Your task to perform on an android device: set the timer Image 0: 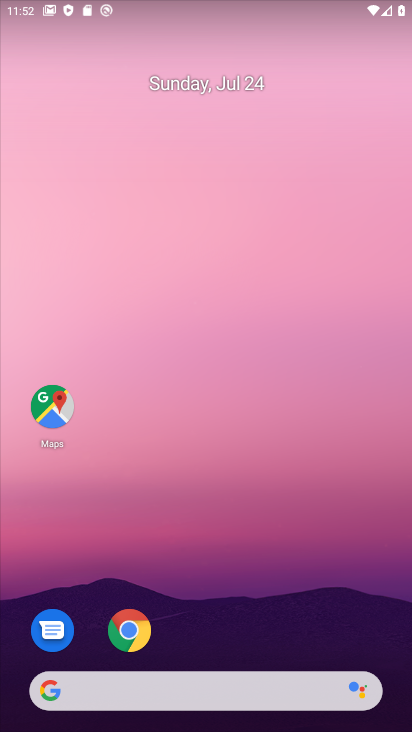
Step 0: press home button
Your task to perform on an android device: set the timer Image 1: 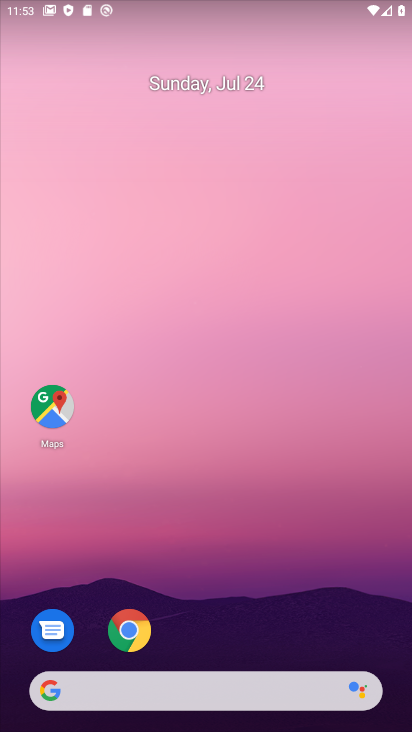
Step 1: drag from (252, 619) to (211, 59)
Your task to perform on an android device: set the timer Image 2: 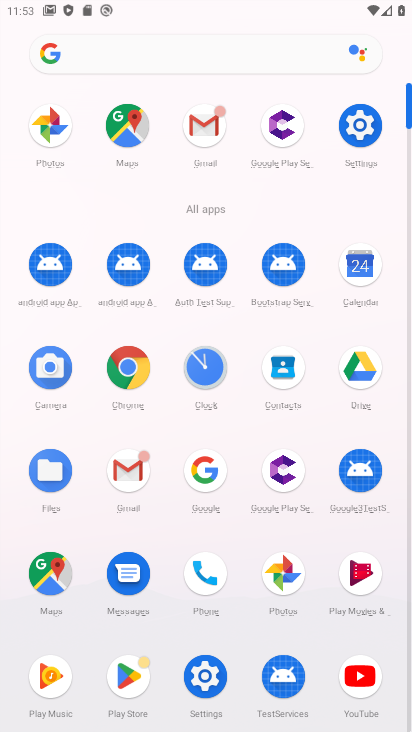
Step 2: click (189, 360)
Your task to perform on an android device: set the timer Image 3: 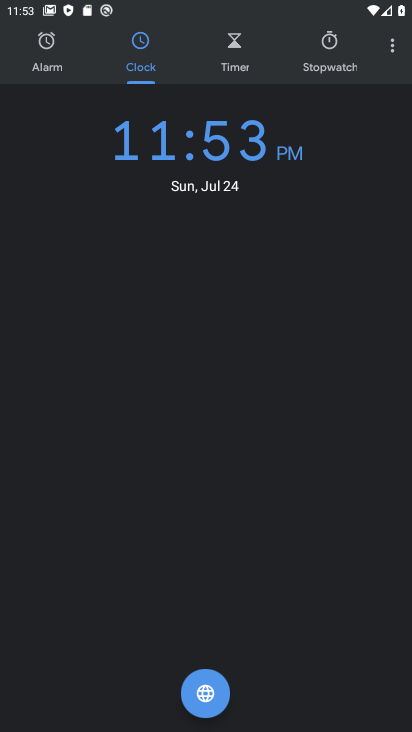
Step 3: click (240, 43)
Your task to perform on an android device: set the timer Image 4: 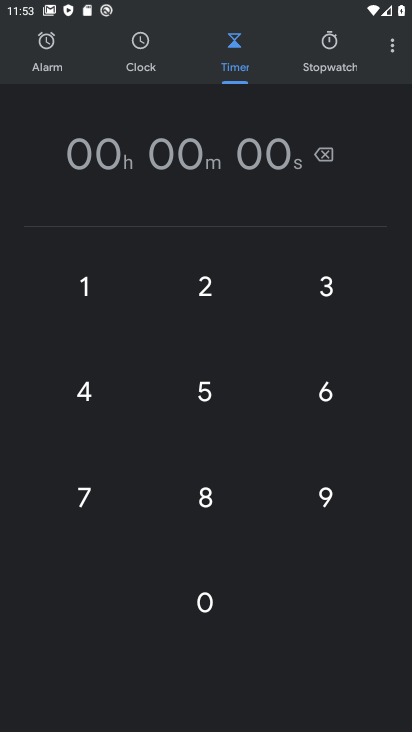
Step 4: click (201, 385)
Your task to perform on an android device: set the timer Image 5: 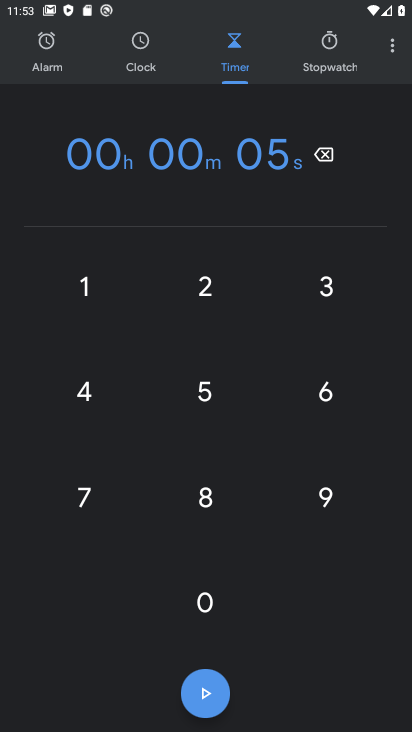
Step 5: click (206, 289)
Your task to perform on an android device: set the timer Image 6: 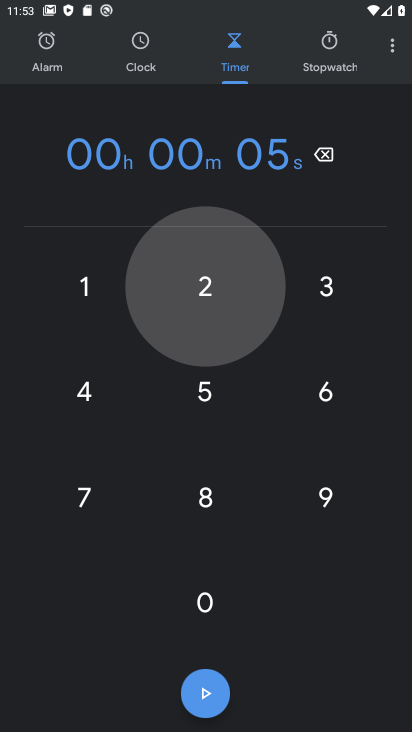
Step 6: click (206, 289)
Your task to perform on an android device: set the timer Image 7: 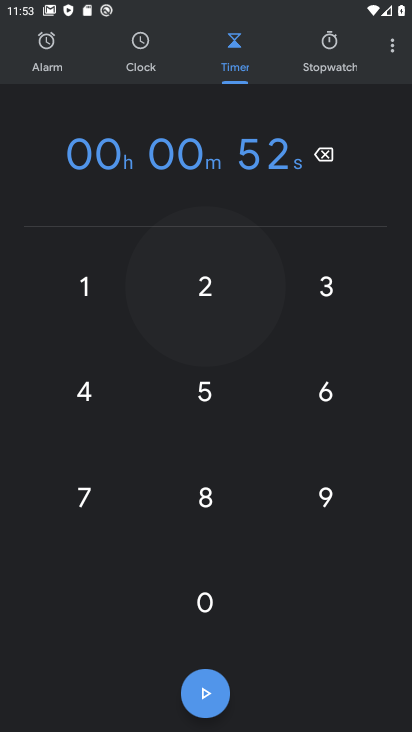
Step 7: click (206, 289)
Your task to perform on an android device: set the timer Image 8: 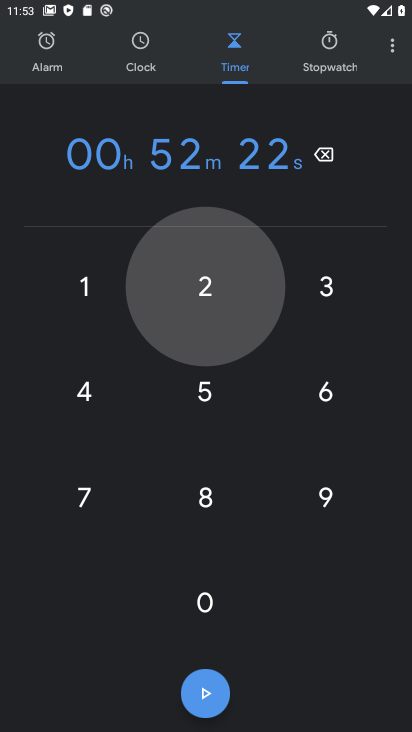
Step 8: click (206, 289)
Your task to perform on an android device: set the timer Image 9: 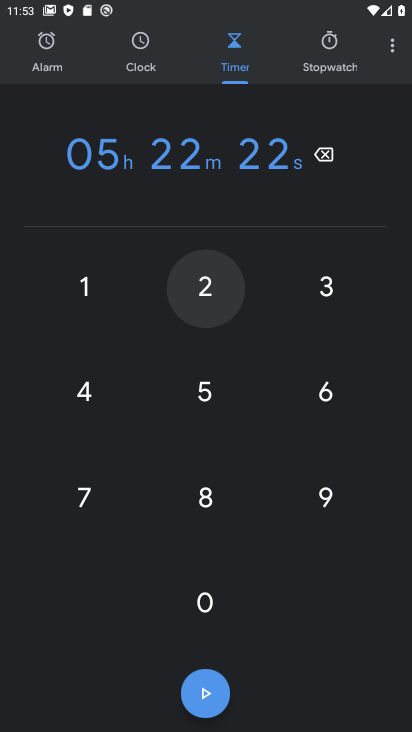
Step 9: click (206, 289)
Your task to perform on an android device: set the timer Image 10: 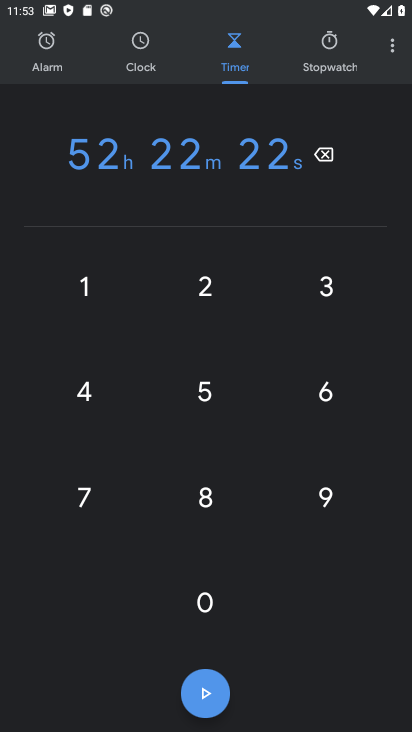
Step 10: click (215, 696)
Your task to perform on an android device: set the timer Image 11: 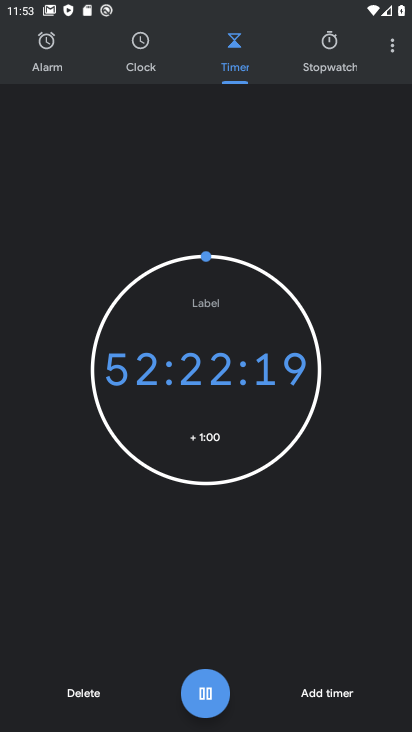
Step 11: task complete